Your task to perform on an android device: set the stopwatch Image 0: 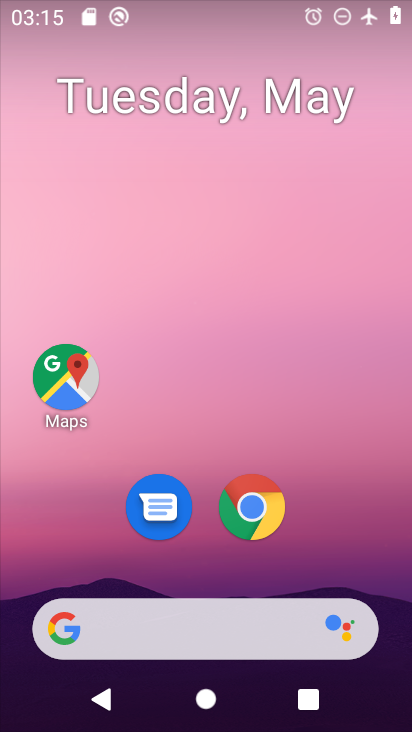
Step 0: drag from (237, 572) to (218, 269)
Your task to perform on an android device: set the stopwatch Image 1: 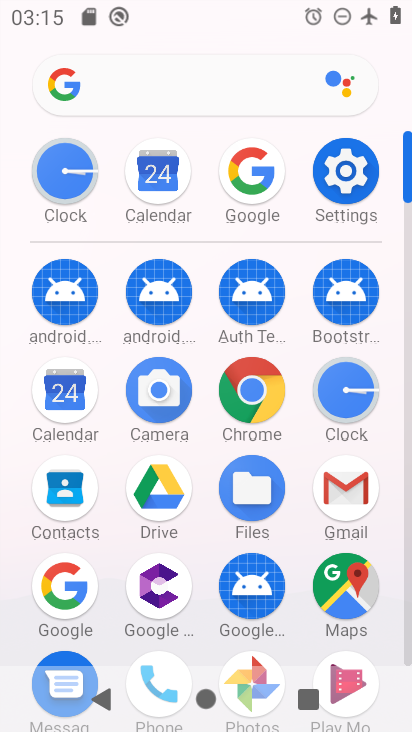
Step 1: click (356, 380)
Your task to perform on an android device: set the stopwatch Image 2: 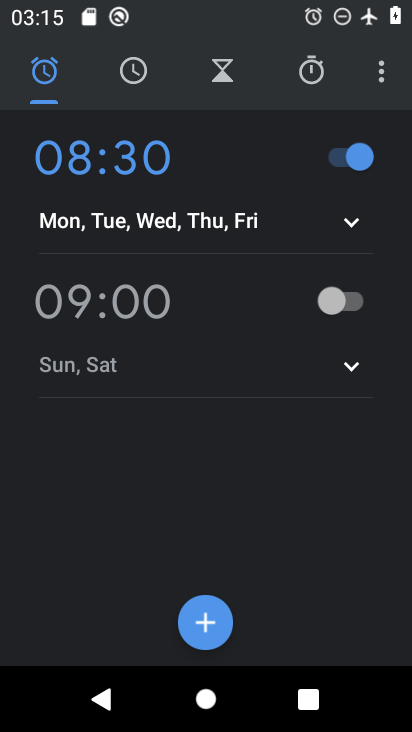
Step 2: click (311, 73)
Your task to perform on an android device: set the stopwatch Image 3: 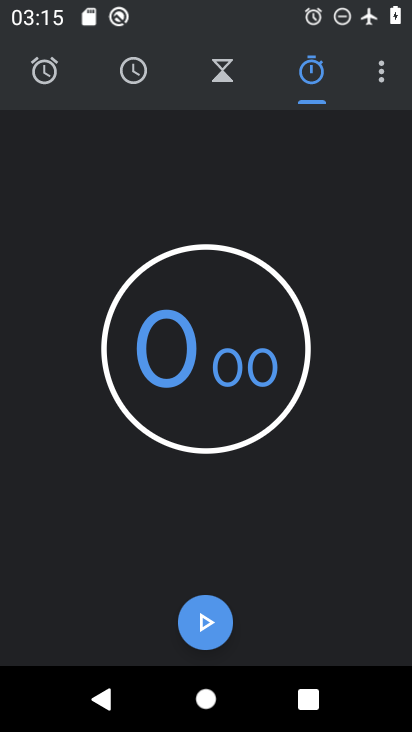
Step 3: task complete